Your task to perform on an android device: Go to internet settings Image 0: 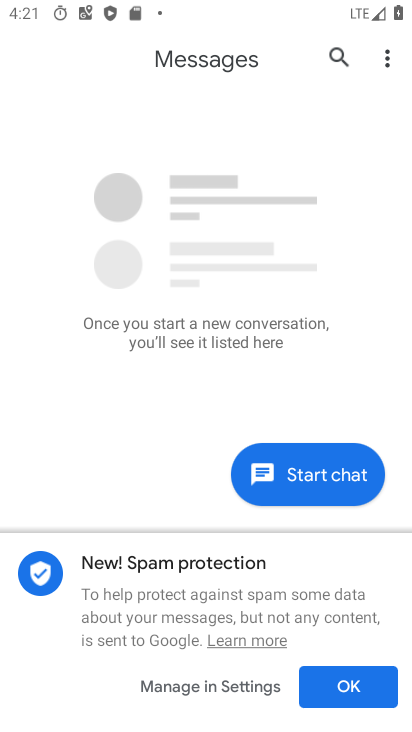
Step 0: press home button
Your task to perform on an android device: Go to internet settings Image 1: 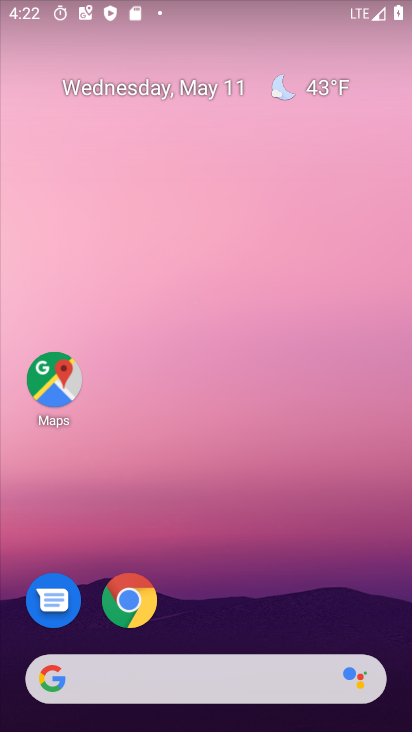
Step 1: drag from (280, 626) to (348, 8)
Your task to perform on an android device: Go to internet settings Image 2: 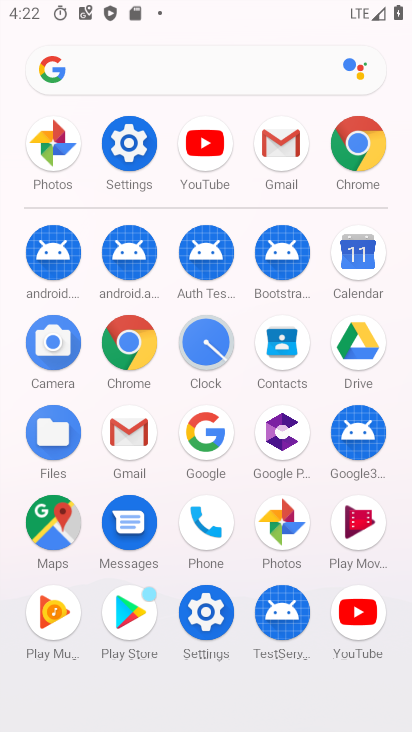
Step 2: click (132, 146)
Your task to perform on an android device: Go to internet settings Image 3: 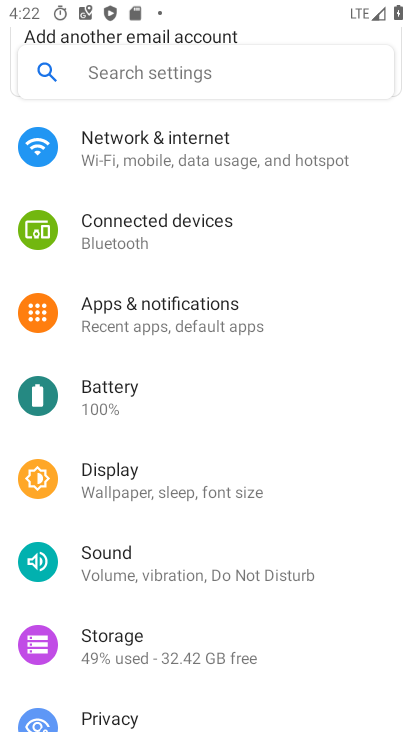
Step 3: click (139, 154)
Your task to perform on an android device: Go to internet settings Image 4: 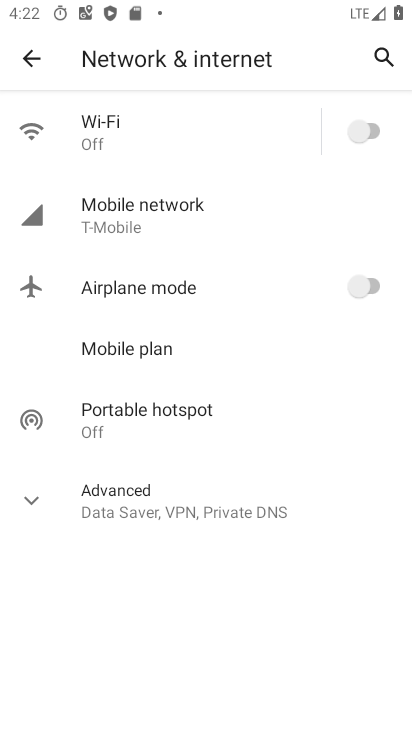
Step 4: click (25, 504)
Your task to perform on an android device: Go to internet settings Image 5: 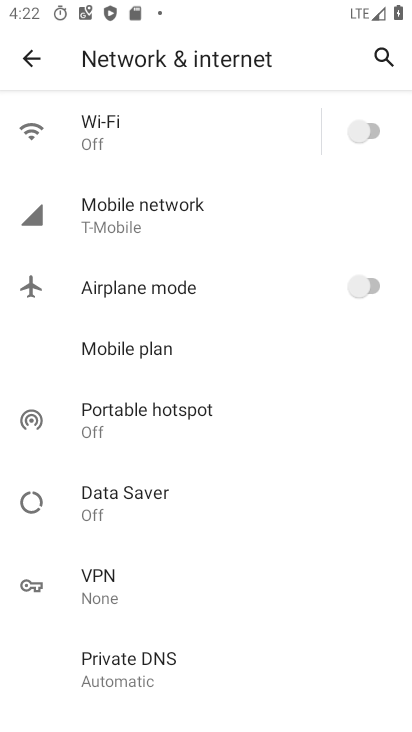
Step 5: task complete